Your task to perform on an android device: Go to settings Image 0: 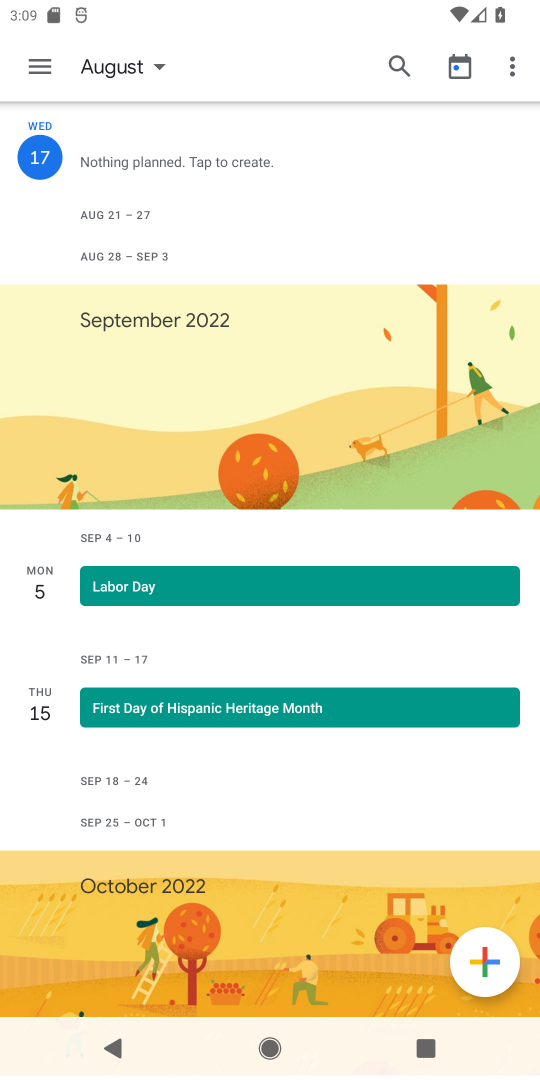
Step 0: press home button
Your task to perform on an android device: Go to settings Image 1: 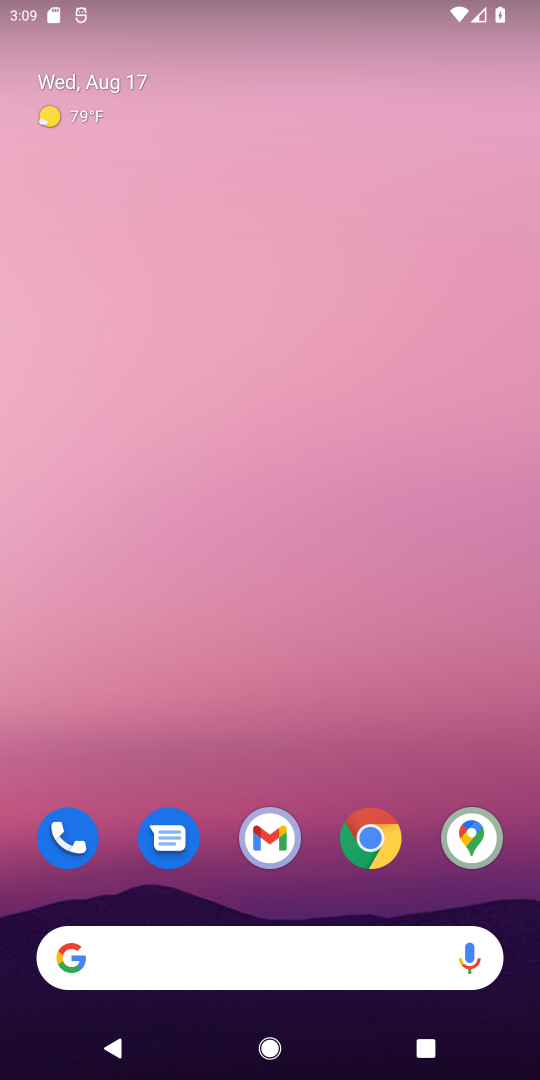
Step 1: drag from (199, 965) to (118, 159)
Your task to perform on an android device: Go to settings Image 2: 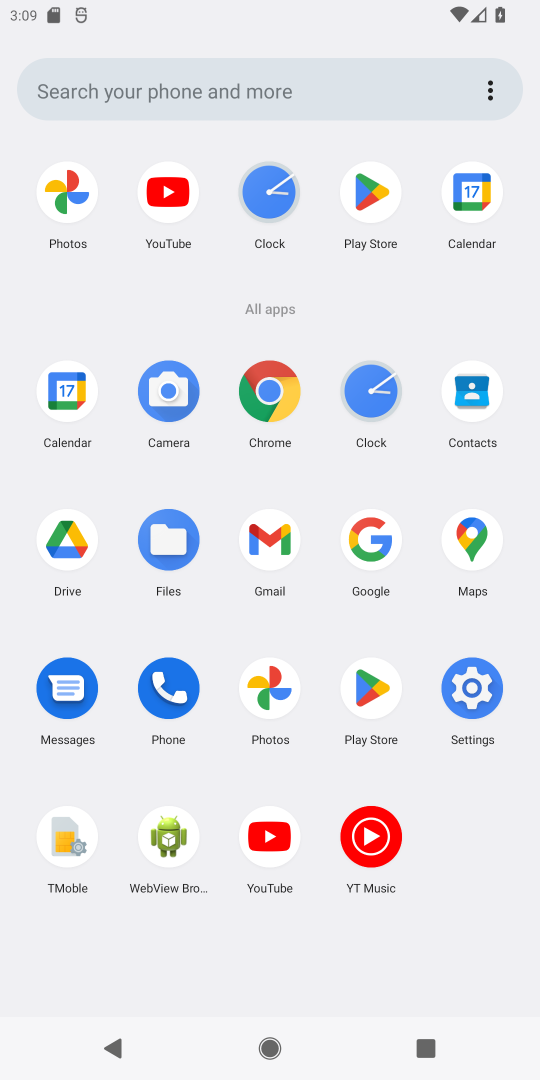
Step 2: click (468, 702)
Your task to perform on an android device: Go to settings Image 3: 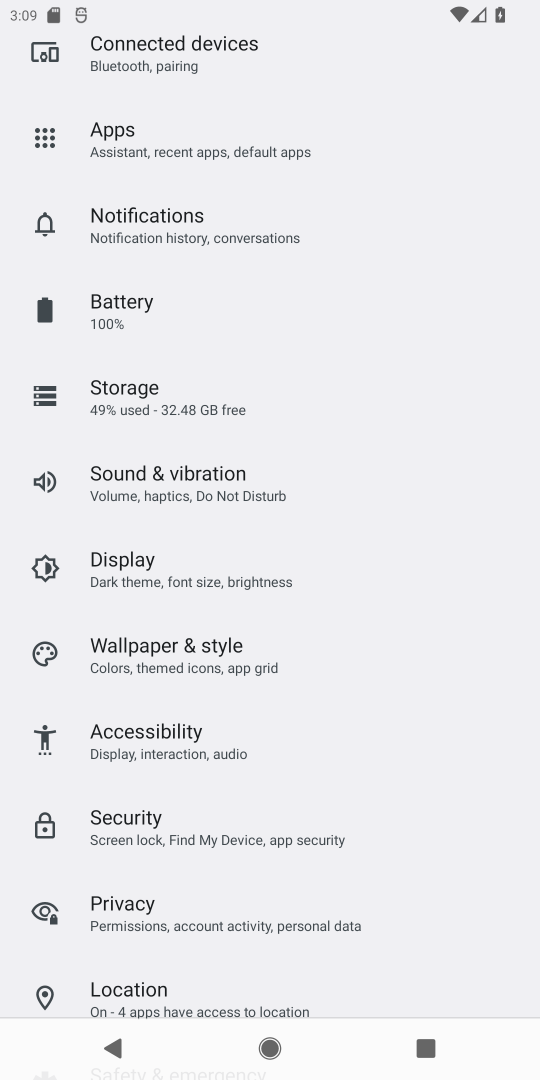
Step 3: task complete